Your task to perform on an android device: Open my contact list Image 0: 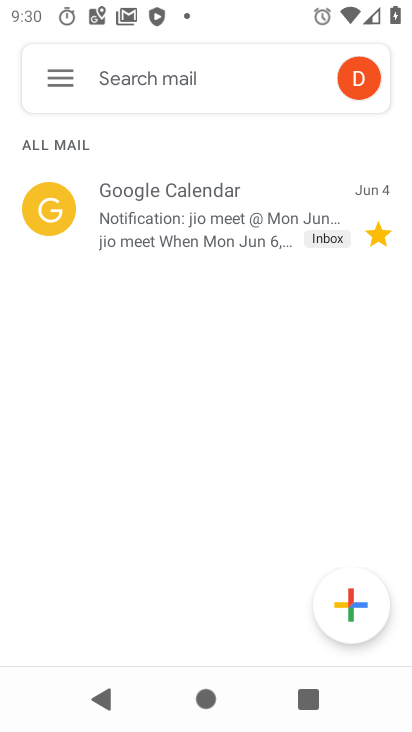
Step 0: press home button
Your task to perform on an android device: Open my contact list Image 1: 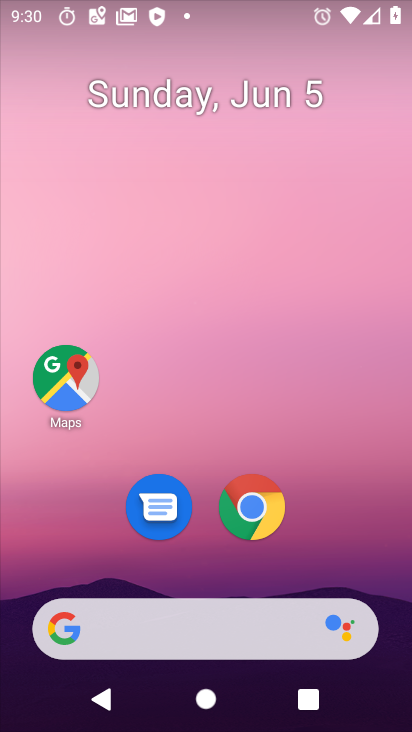
Step 1: drag from (303, 676) to (234, 185)
Your task to perform on an android device: Open my contact list Image 2: 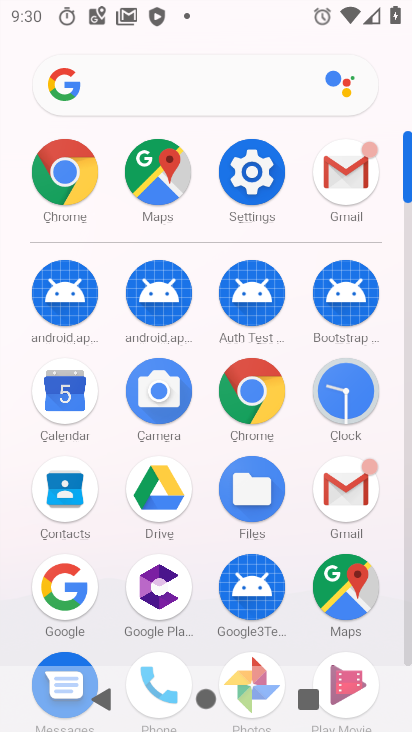
Step 2: click (172, 652)
Your task to perform on an android device: Open my contact list Image 3: 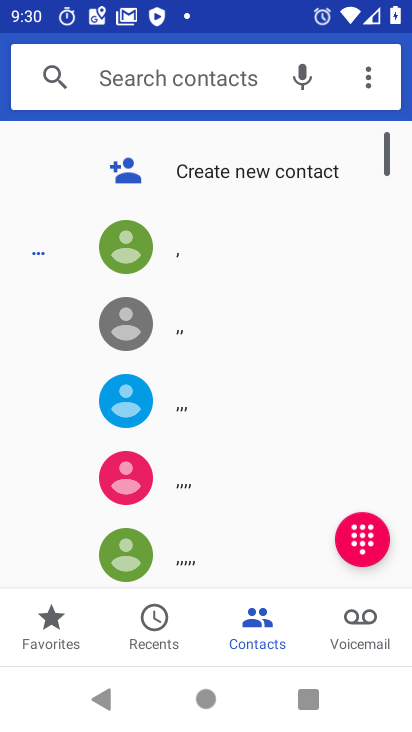
Step 3: task complete